Your task to perform on an android device: set the stopwatch Image 0: 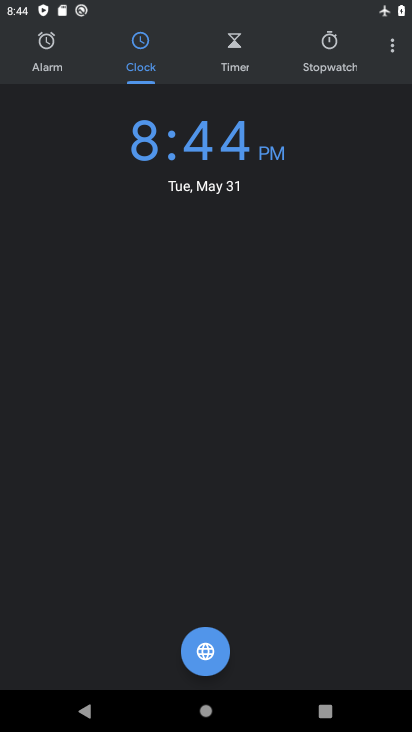
Step 0: click (340, 50)
Your task to perform on an android device: set the stopwatch Image 1: 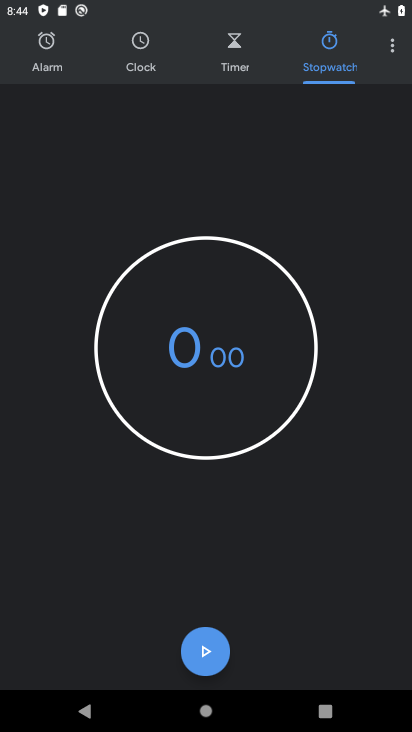
Step 1: task complete